Your task to perform on an android device: Toggle the flashlight Image 0: 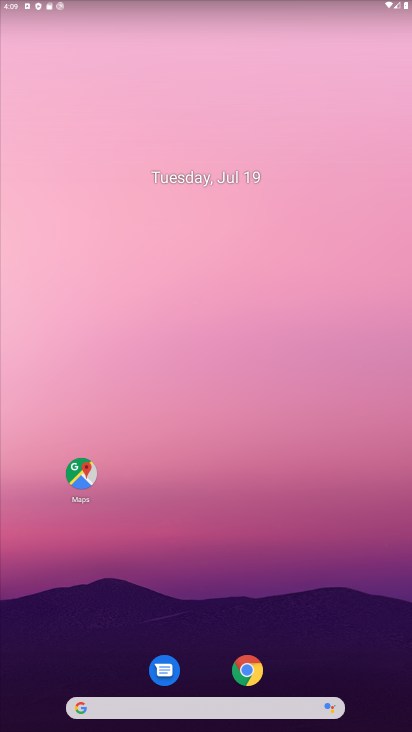
Step 0: drag from (299, 0) to (333, 642)
Your task to perform on an android device: Toggle the flashlight Image 1: 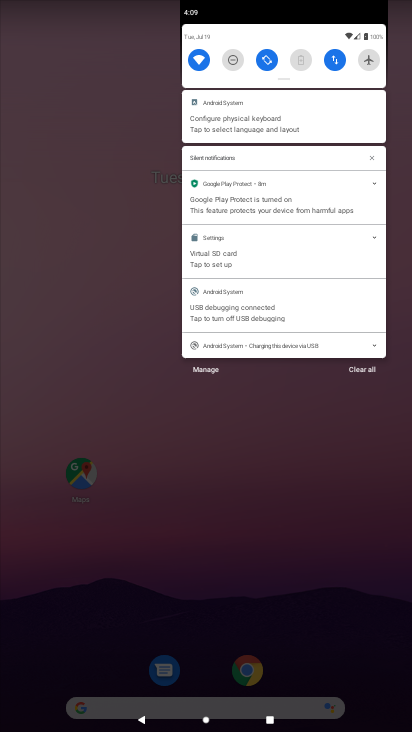
Step 1: task complete